Your task to perform on an android device: Open maps Image 0: 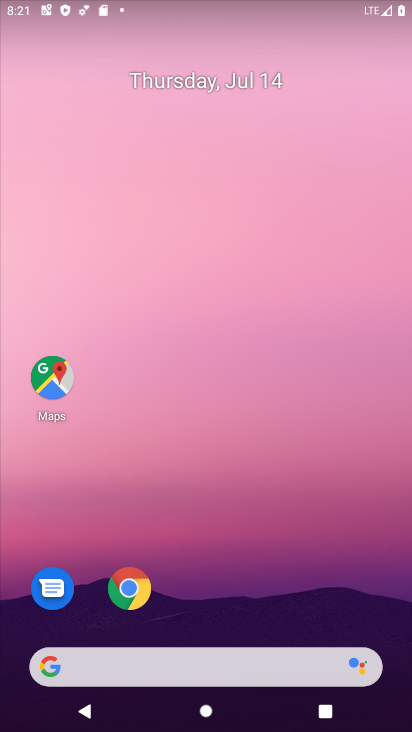
Step 0: drag from (344, 613) to (144, 69)
Your task to perform on an android device: Open maps Image 1: 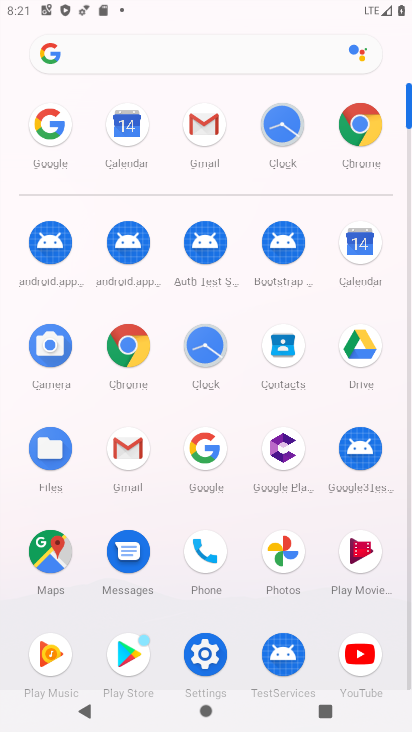
Step 1: click (55, 554)
Your task to perform on an android device: Open maps Image 2: 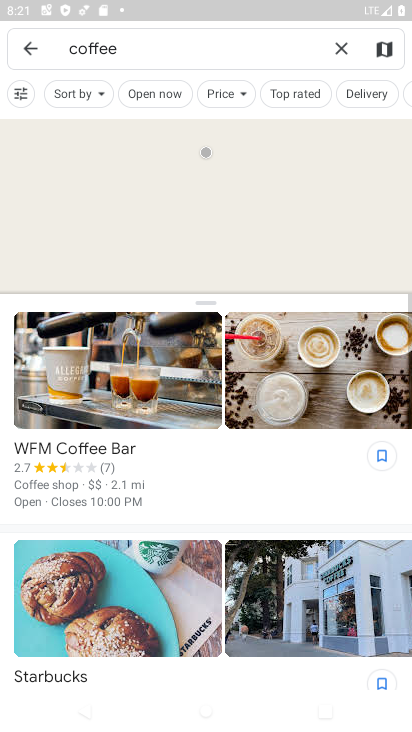
Step 2: click (340, 44)
Your task to perform on an android device: Open maps Image 3: 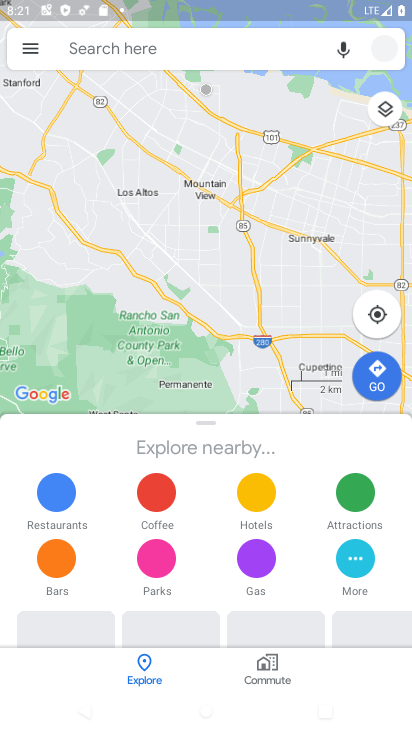
Step 3: task complete